Your task to perform on an android device: turn off javascript in the chrome app Image 0: 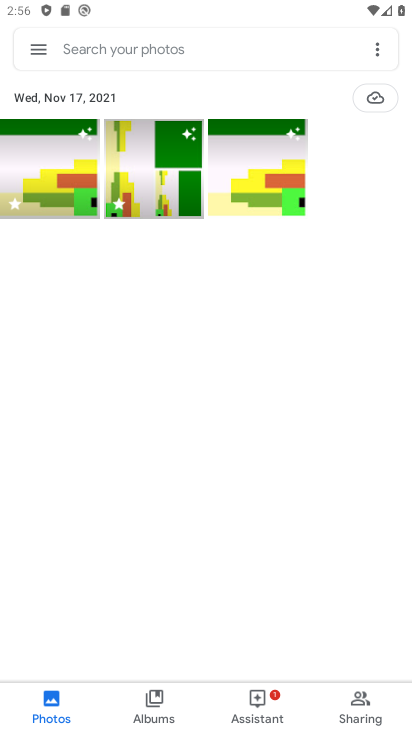
Step 0: press home button
Your task to perform on an android device: turn off javascript in the chrome app Image 1: 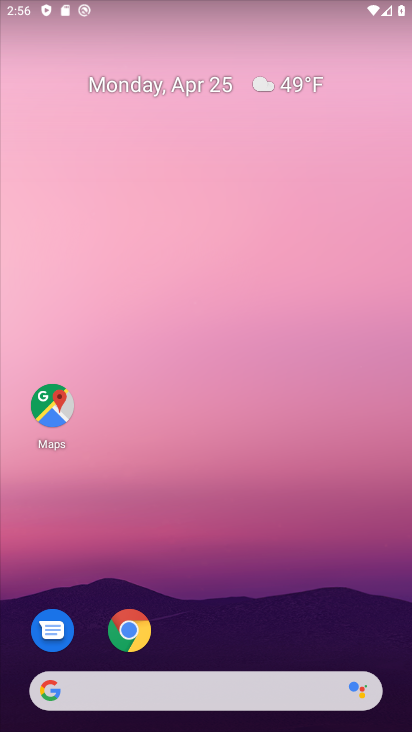
Step 1: click (133, 627)
Your task to perform on an android device: turn off javascript in the chrome app Image 2: 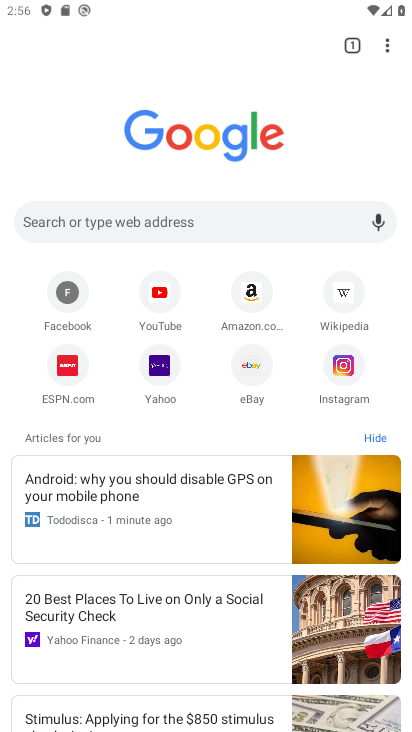
Step 2: click (390, 42)
Your task to perform on an android device: turn off javascript in the chrome app Image 3: 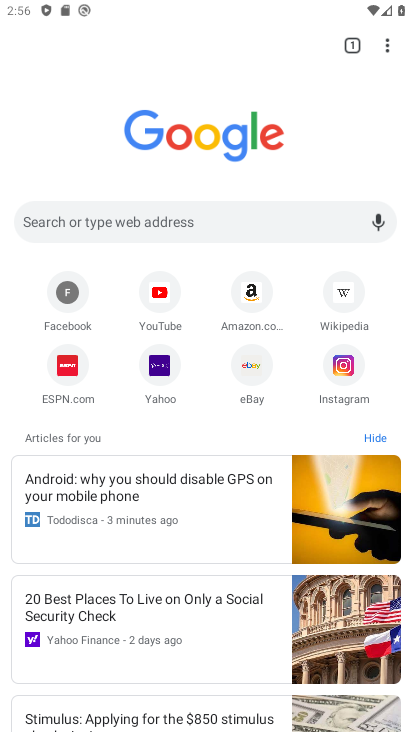
Step 3: click (389, 42)
Your task to perform on an android device: turn off javascript in the chrome app Image 4: 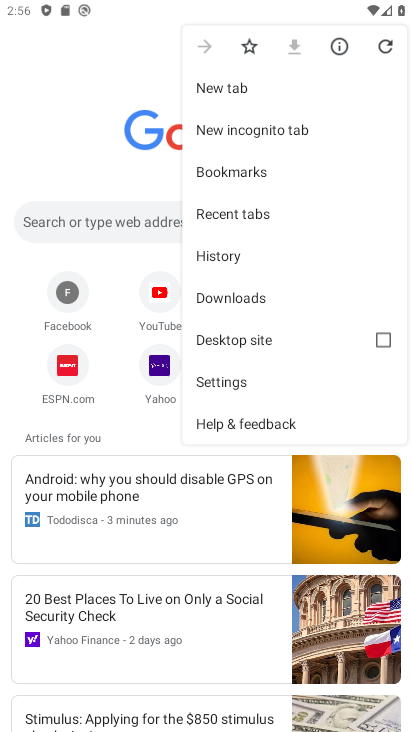
Step 4: click (273, 370)
Your task to perform on an android device: turn off javascript in the chrome app Image 5: 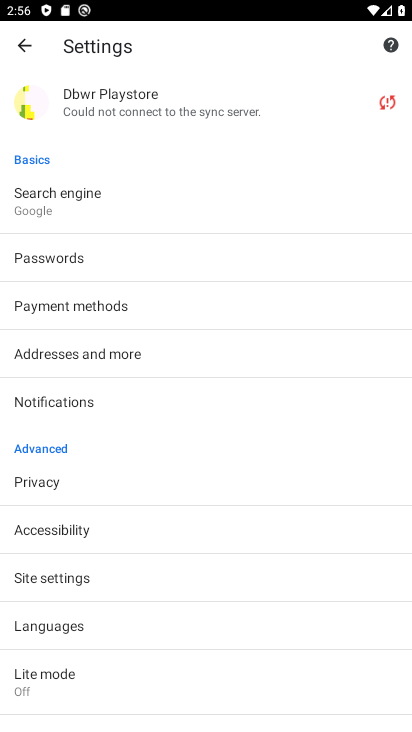
Step 5: click (155, 565)
Your task to perform on an android device: turn off javascript in the chrome app Image 6: 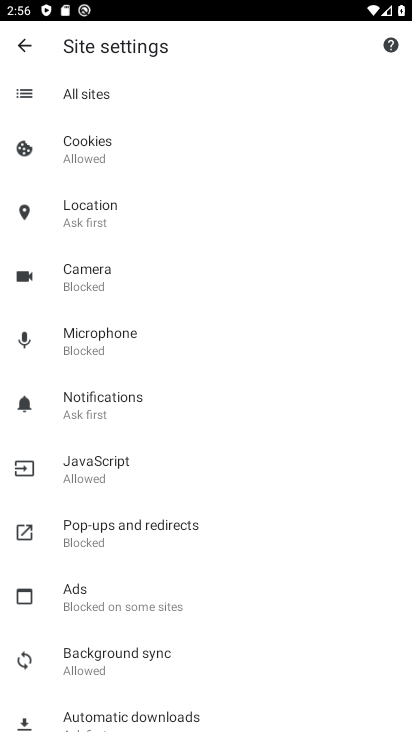
Step 6: click (161, 467)
Your task to perform on an android device: turn off javascript in the chrome app Image 7: 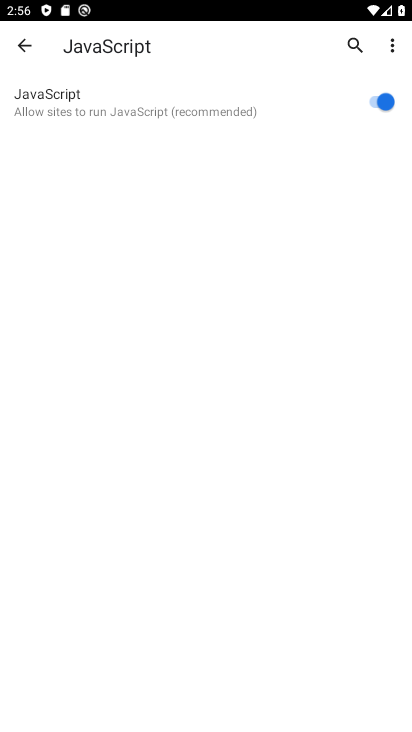
Step 7: click (369, 97)
Your task to perform on an android device: turn off javascript in the chrome app Image 8: 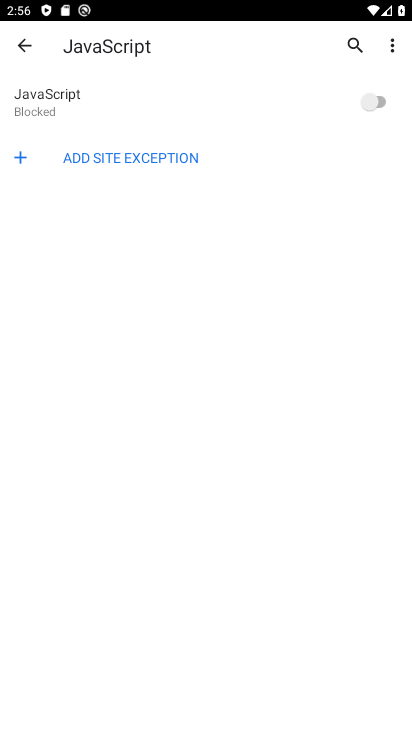
Step 8: task complete